Your task to perform on an android device: turn notification dots on Image 0: 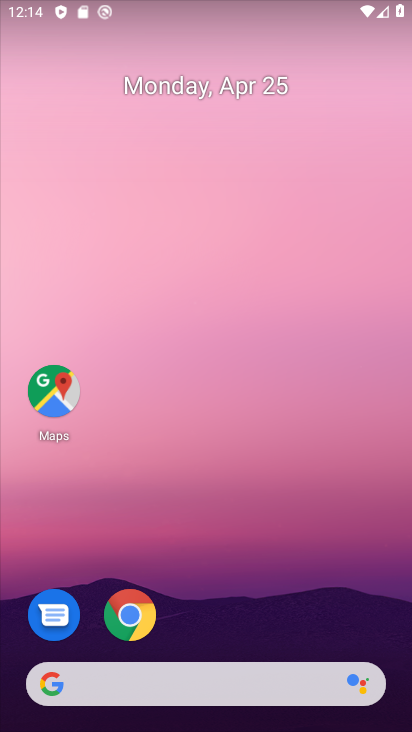
Step 0: drag from (205, 657) to (182, 35)
Your task to perform on an android device: turn notification dots on Image 1: 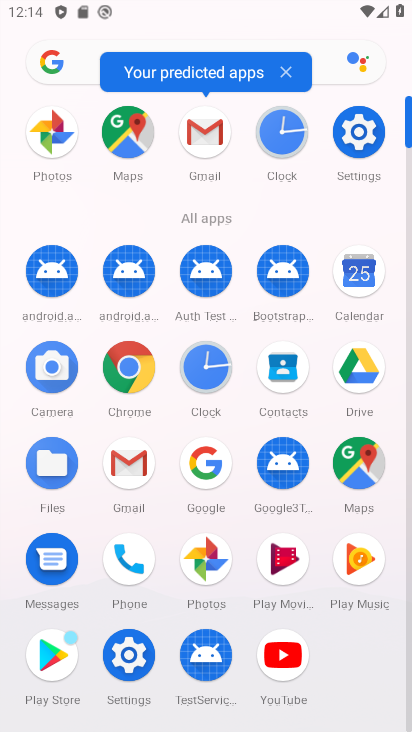
Step 1: click (128, 662)
Your task to perform on an android device: turn notification dots on Image 2: 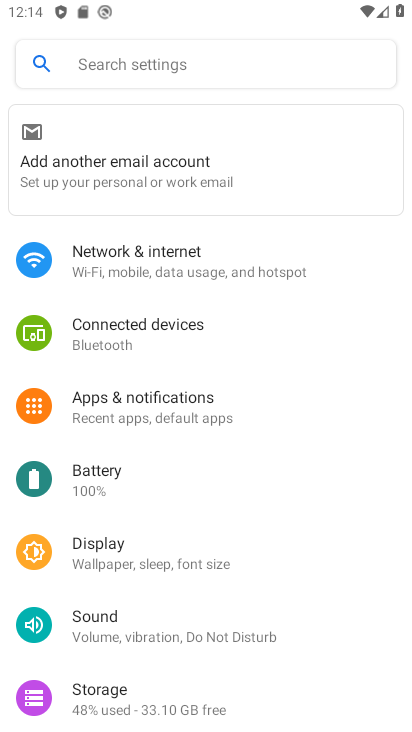
Step 2: click (117, 391)
Your task to perform on an android device: turn notification dots on Image 3: 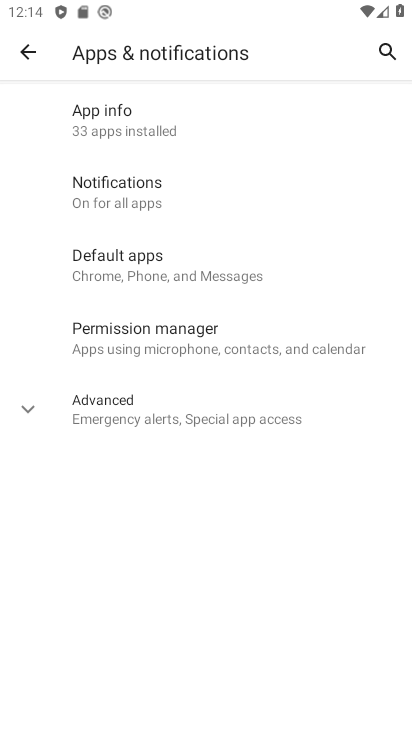
Step 3: click (92, 159)
Your task to perform on an android device: turn notification dots on Image 4: 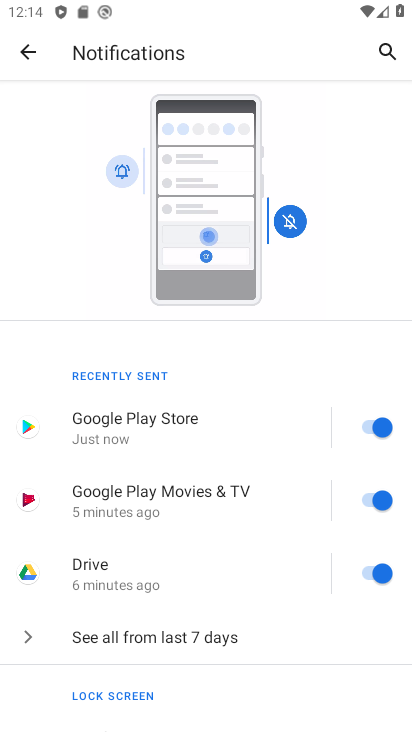
Step 4: drag from (249, 551) to (252, 104)
Your task to perform on an android device: turn notification dots on Image 5: 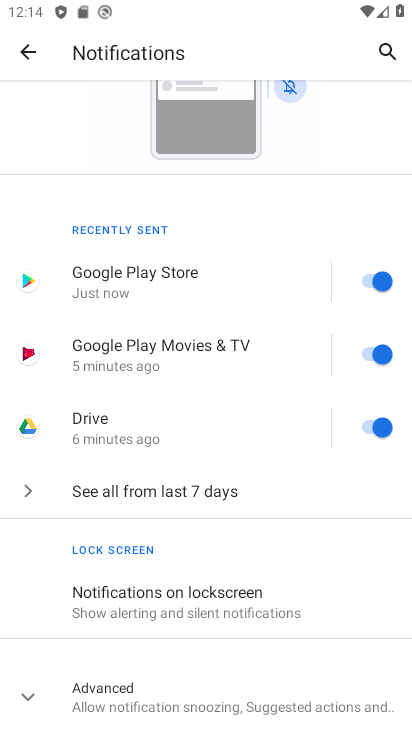
Step 5: click (136, 695)
Your task to perform on an android device: turn notification dots on Image 6: 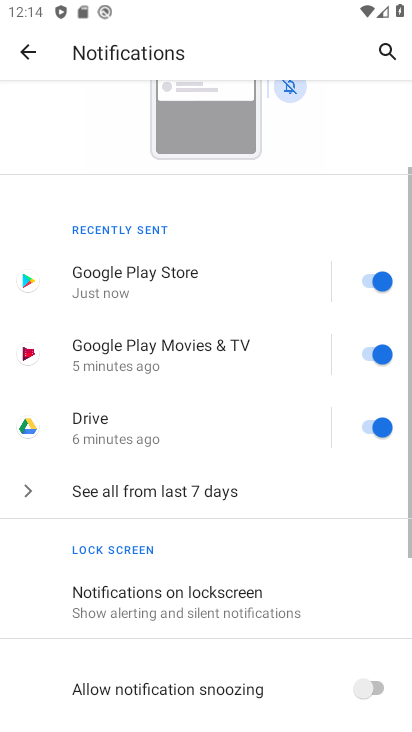
Step 6: task complete